Your task to perform on an android device: set the stopwatch Image 0: 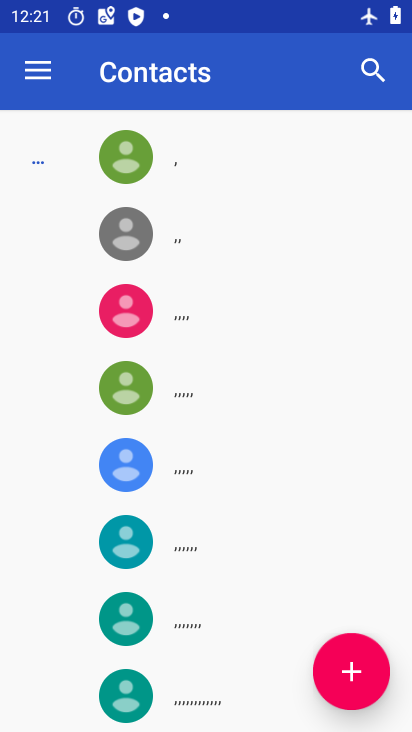
Step 0: press home button
Your task to perform on an android device: set the stopwatch Image 1: 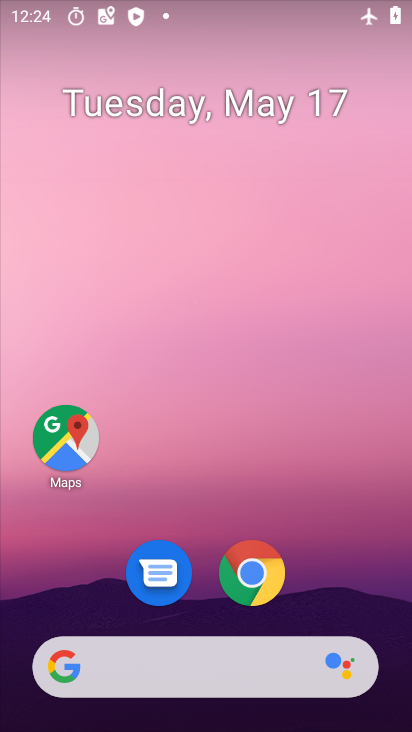
Step 1: drag from (251, 722) to (355, 49)
Your task to perform on an android device: set the stopwatch Image 2: 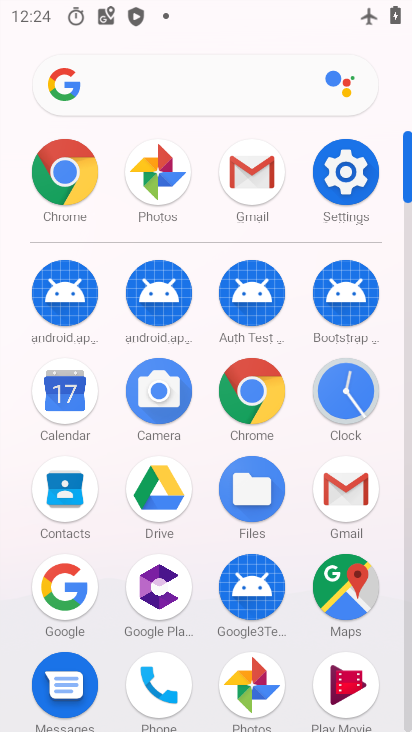
Step 2: click (352, 389)
Your task to perform on an android device: set the stopwatch Image 3: 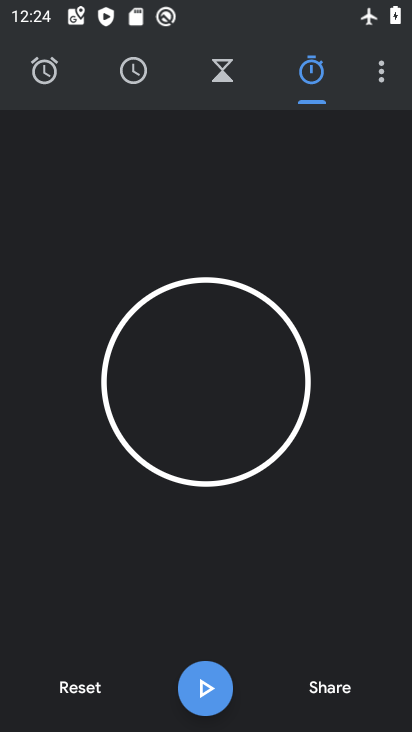
Step 3: click (210, 692)
Your task to perform on an android device: set the stopwatch Image 4: 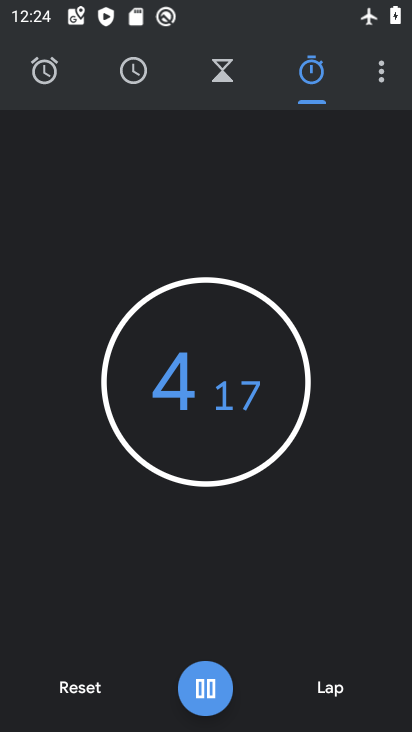
Step 4: task complete